Your task to perform on an android device: check out phone information Image 0: 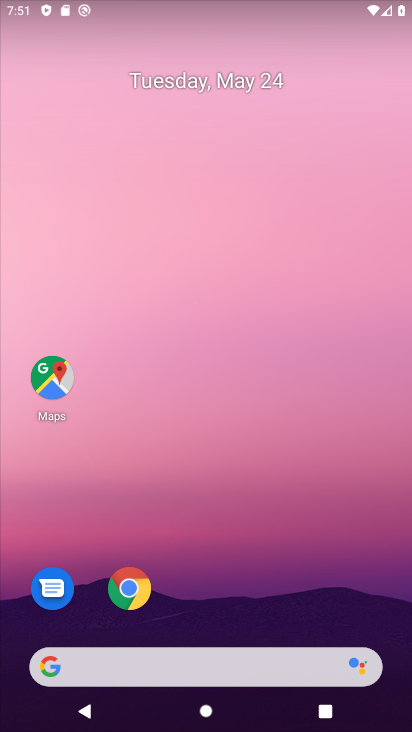
Step 0: drag from (201, 624) to (222, 303)
Your task to perform on an android device: check out phone information Image 1: 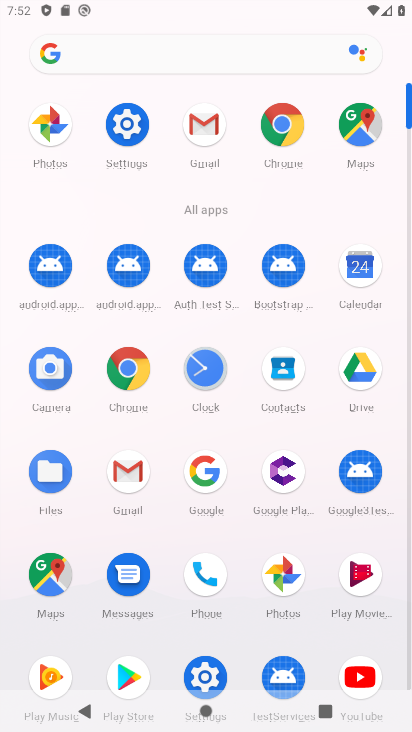
Step 1: click (131, 126)
Your task to perform on an android device: check out phone information Image 2: 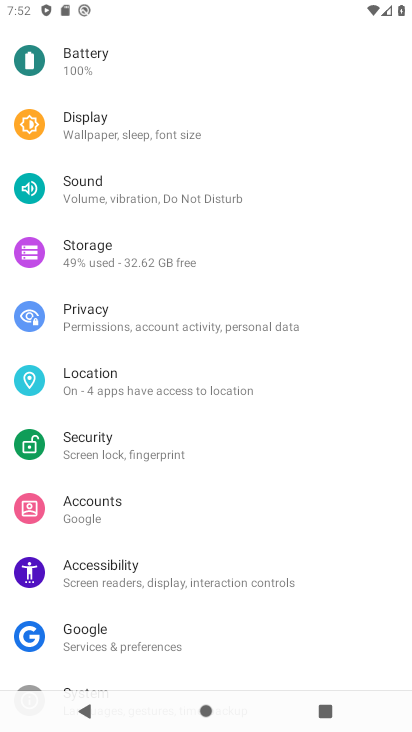
Step 2: drag from (255, 557) to (312, 379)
Your task to perform on an android device: check out phone information Image 3: 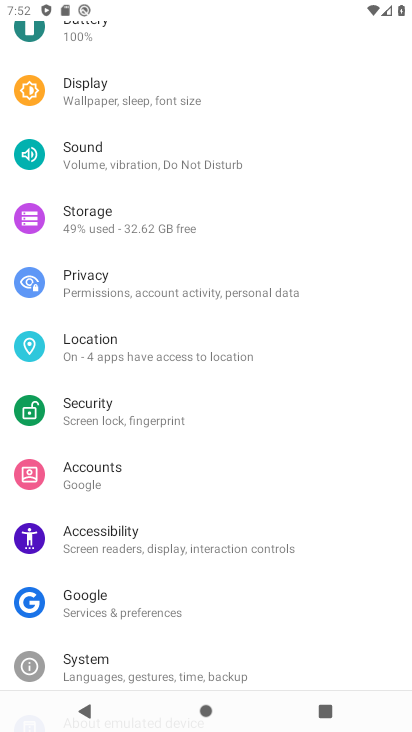
Step 3: drag from (153, 652) to (225, 14)
Your task to perform on an android device: check out phone information Image 4: 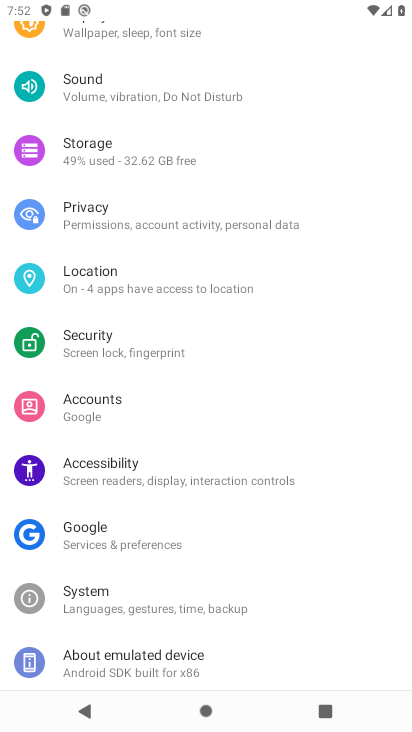
Step 4: click (193, 649)
Your task to perform on an android device: check out phone information Image 5: 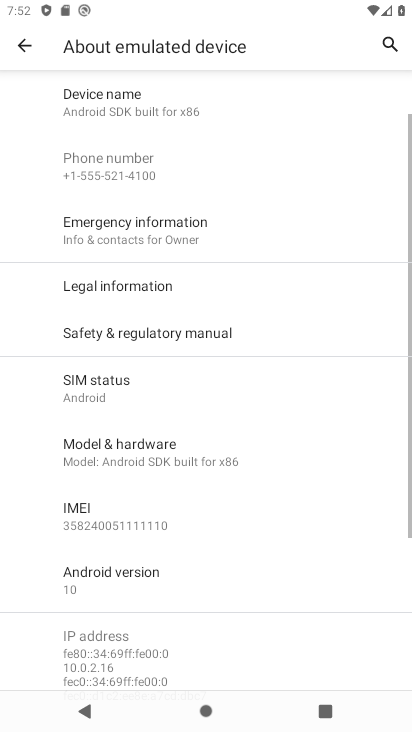
Step 5: task complete